Your task to perform on an android device: Go to Android settings Image 0: 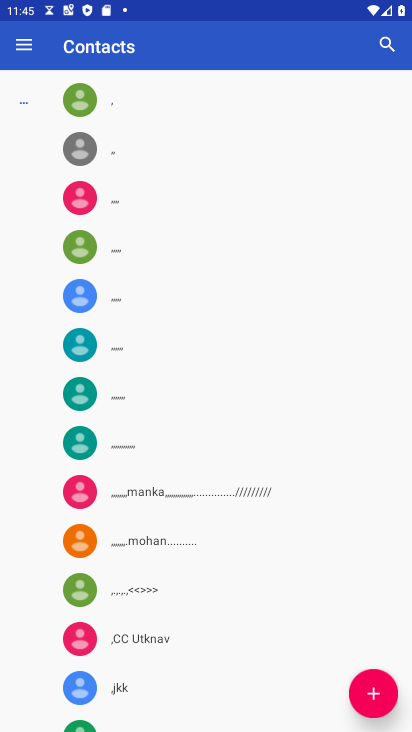
Step 0: press home button
Your task to perform on an android device: Go to Android settings Image 1: 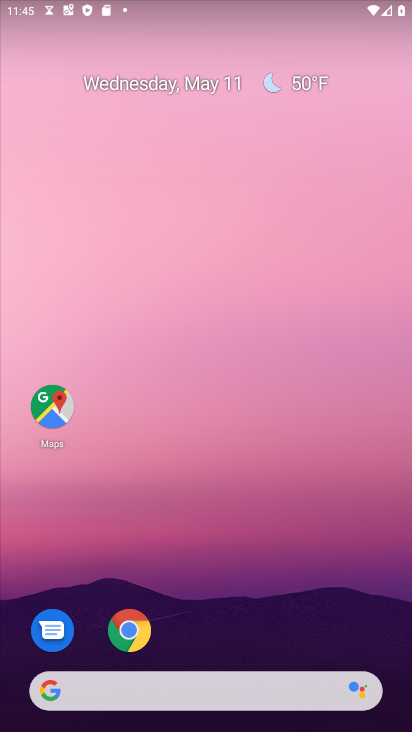
Step 1: drag from (215, 725) to (215, 64)
Your task to perform on an android device: Go to Android settings Image 2: 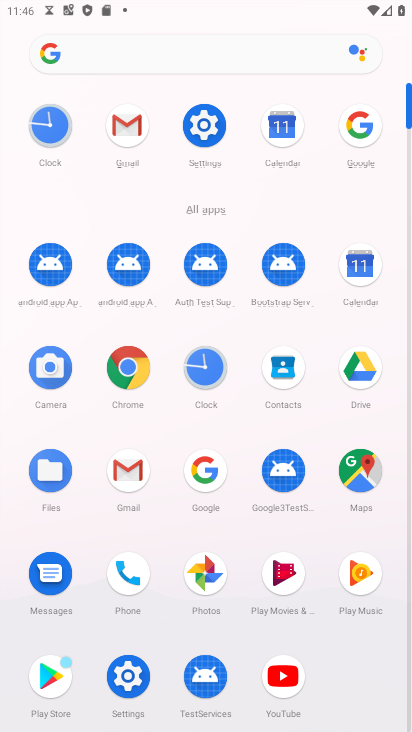
Step 2: click (203, 128)
Your task to perform on an android device: Go to Android settings Image 3: 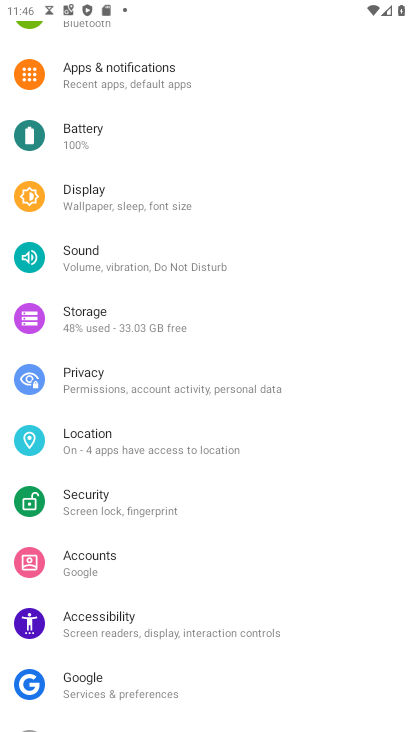
Step 3: task complete